Your task to perform on an android device: change timer sound Image 0: 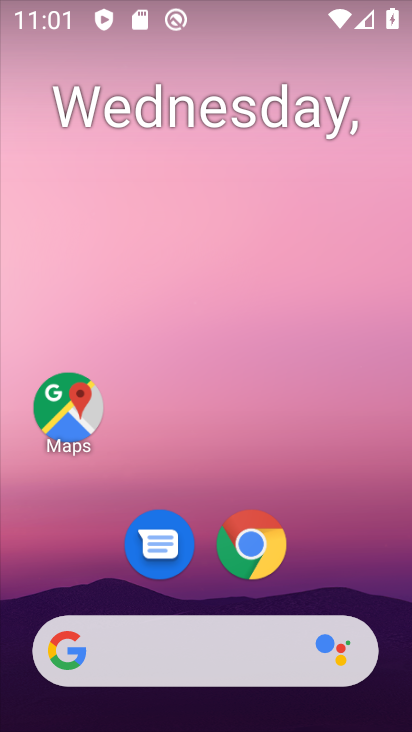
Step 0: drag from (198, 467) to (216, 63)
Your task to perform on an android device: change timer sound Image 1: 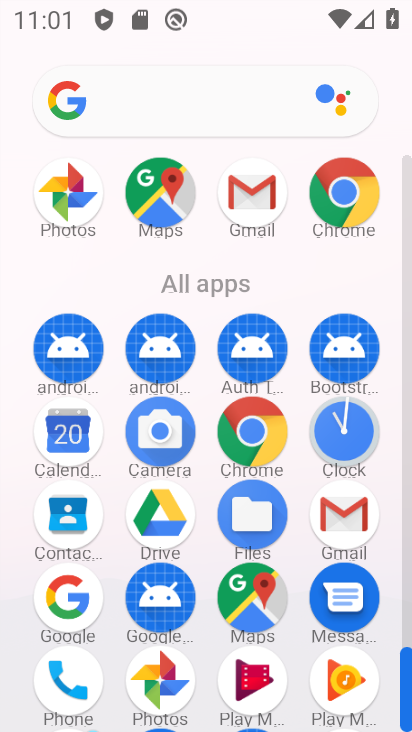
Step 1: click (350, 442)
Your task to perform on an android device: change timer sound Image 2: 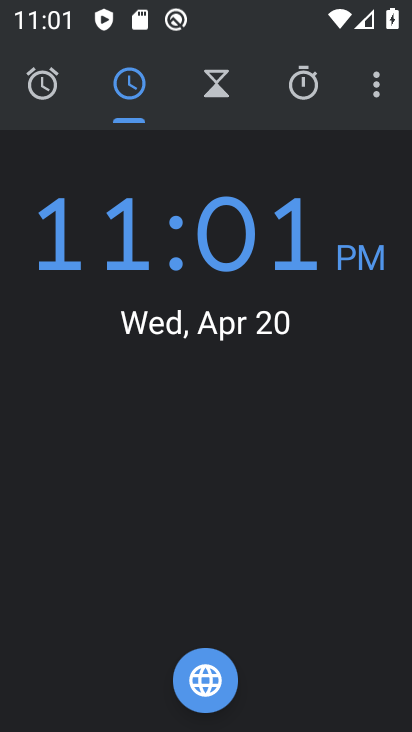
Step 2: click (381, 86)
Your task to perform on an android device: change timer sound Image 3: 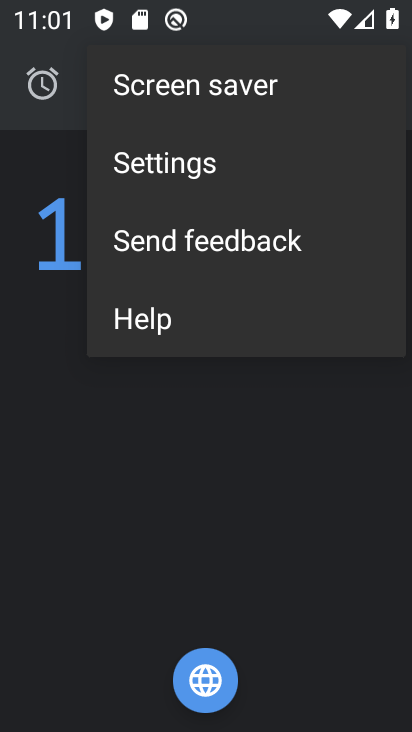
Step 3: click (188, 166)
Your task to perform on an android device: change timer sound Image 4: 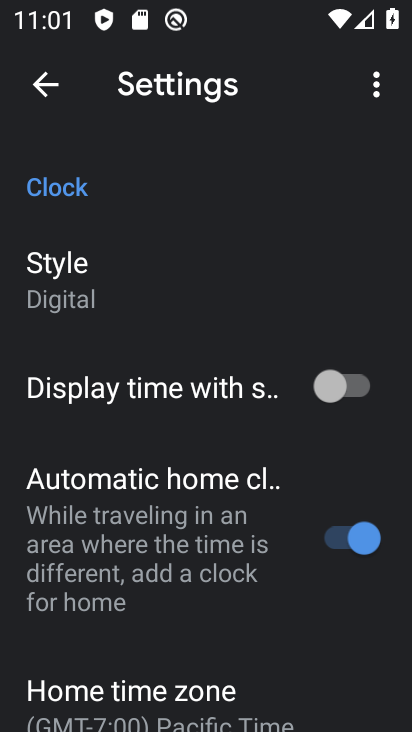
Step 4: drag from (201, 555) to (254, 125)
Your task to perform on an android device: change timer sound Image 5: 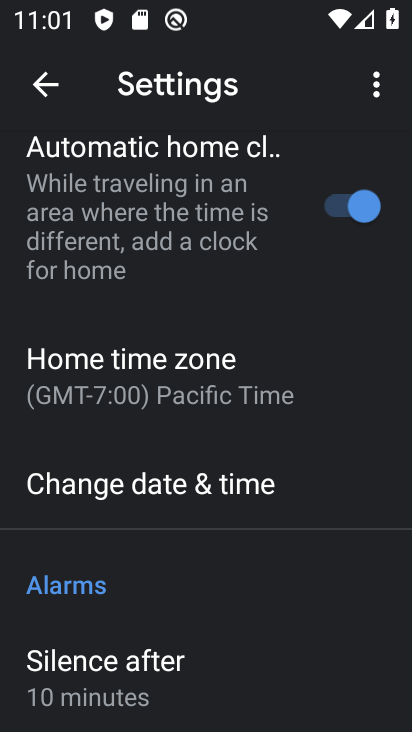
Step 5: drag from (215, 634) to (257, 230)
Your task to perform on an android device: change timer sound Image 6: 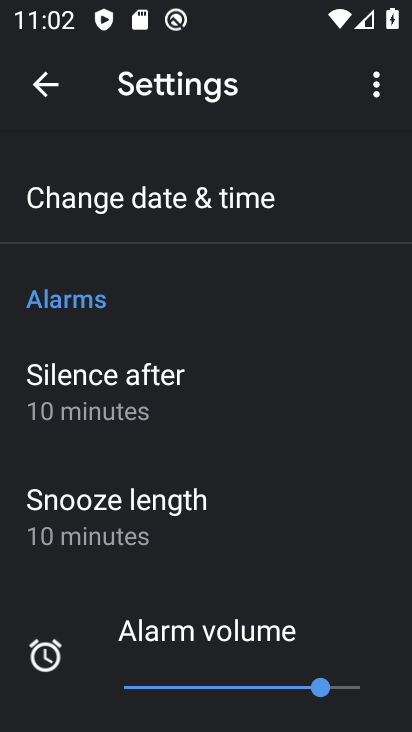
Step 6: drag from (187, 485) to (242, 208)
Your task to perform on an android device: change timer sound Image 7: 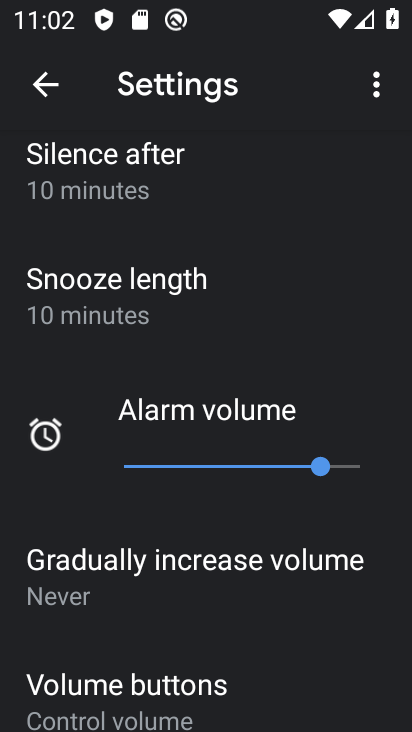
Step 7: drag from (256, 692) to (280, 345)
Your task to perform on an android device: change timer sound Image 8: 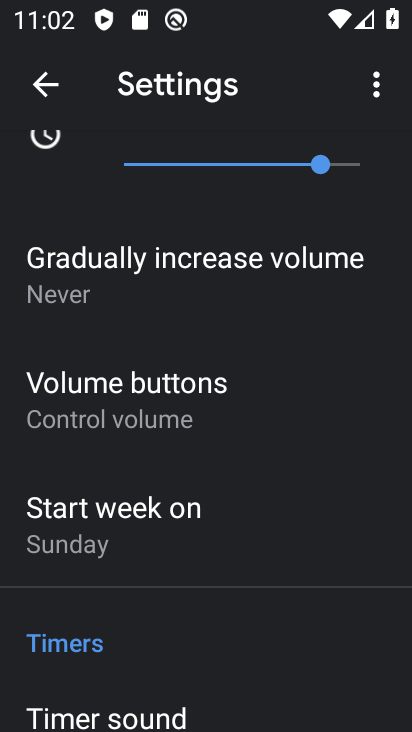
Step 8: drag from (235, 608) to (262, 333)
Your task to perform on an android device: change timer sound Image 9: 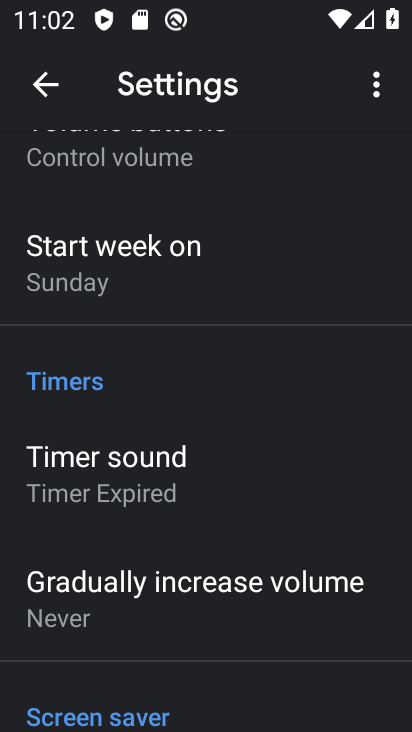
Step 9: click (159, 478)
Your task to perform on an android device: change timer sound Image 10: 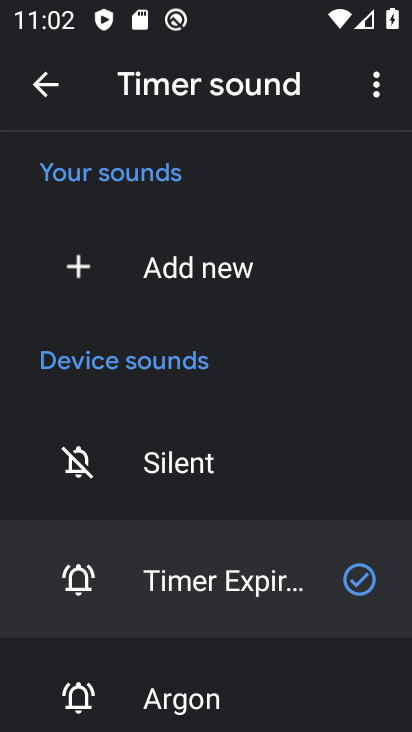
Step 10: click (207, 676)
Your task to perform on an android device: change timer sound Image 11: 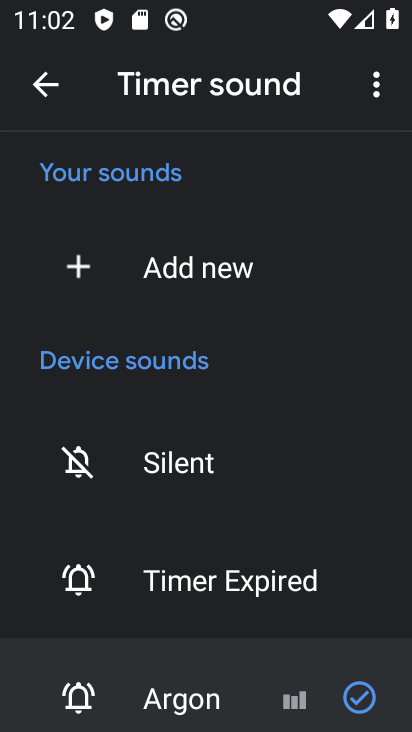
Step 11: task complete